Your task to perform on an android device: find photos in the google photos app Image 0: 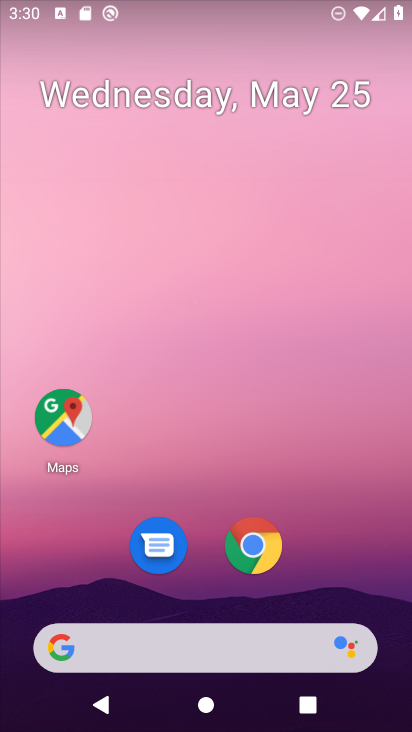
Step 0: drag from (367, 555) to (363, 206)
Your task to perform on an android device: find photos in the google photos app Image 1: 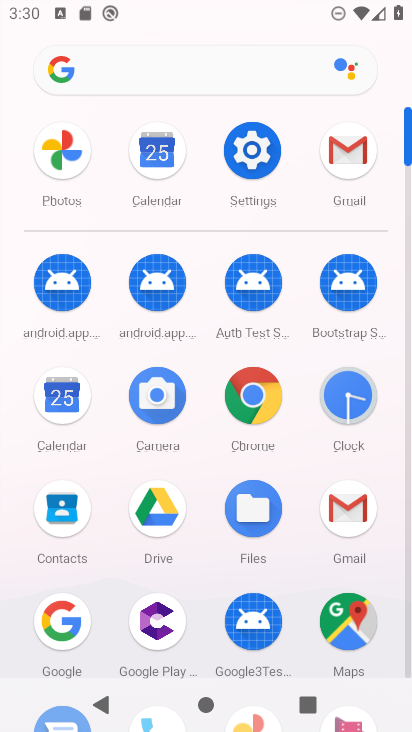
Step 1: click (70, 176)
Your task to perform on an android device: find photos in the google photos app Image 2: 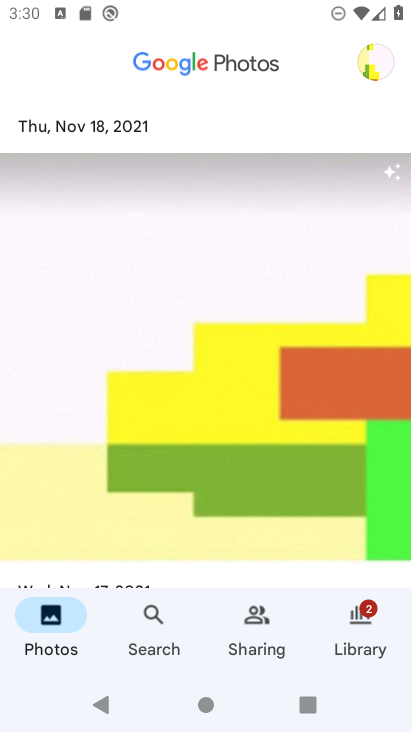
Step 2: click (355, 599)
Your task to perform on an android device: find photos in the google photos app Image 3: 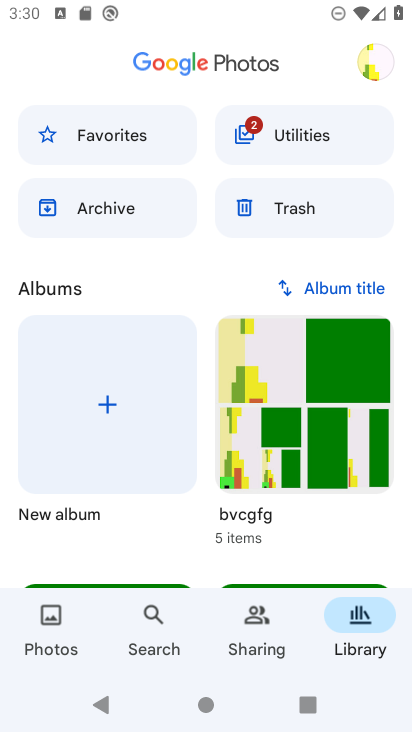
Step 3: click (131, 203)
Your task to perform on an android device: find photos in the google photos app Image 4: 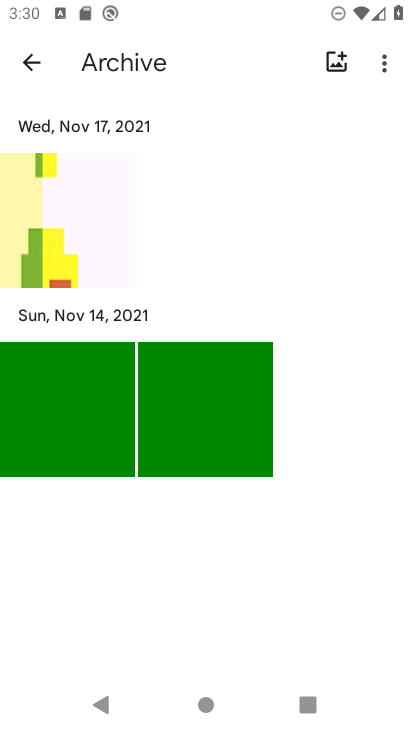
Step 4: task complete